Your task to perform on an android device: refresh tabs in the chrome app Image 0: 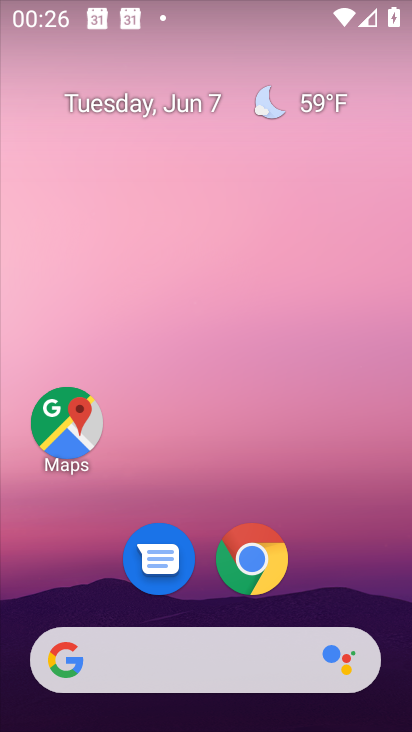
Step 0: click (257, 553)
Your task to perform on an android device: refresh tabs in the chrome app Image 1: 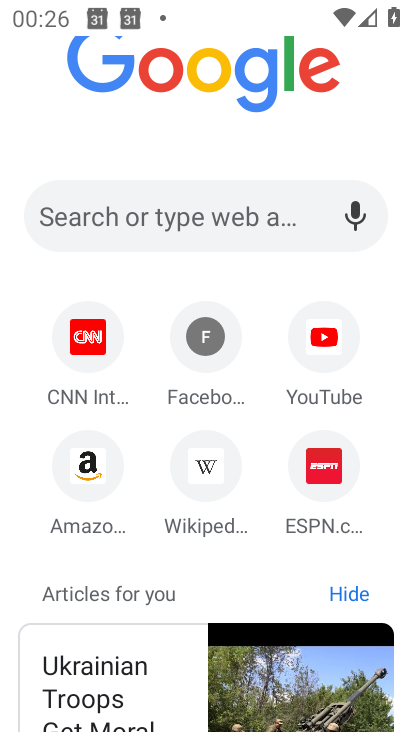
Step 1: drag from (352, 98) to (343, 372)
Your task to perform on an android device: refresh tabs in the chrome app Image 2: 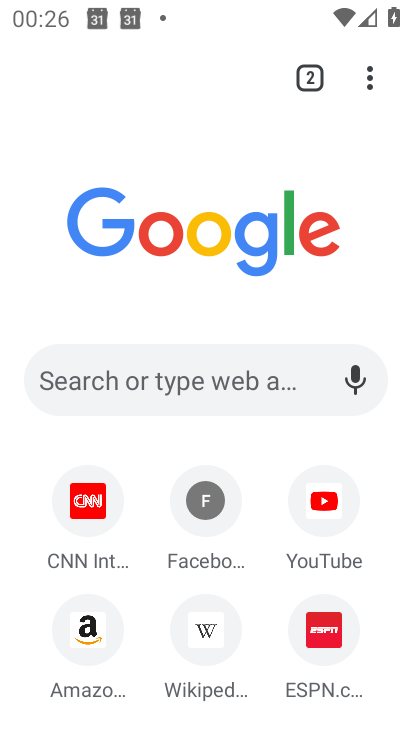
Step 2: click (368, 74)
Your task to perform on an android device: refresh tabs in the chrome app Image 3: 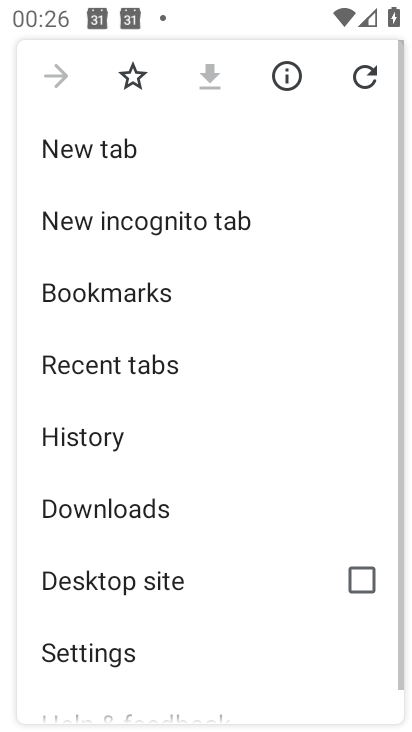
Step 3: click (145, 148)
Your task to perform on an android device: refresh tabs in the chrome app Image 4: 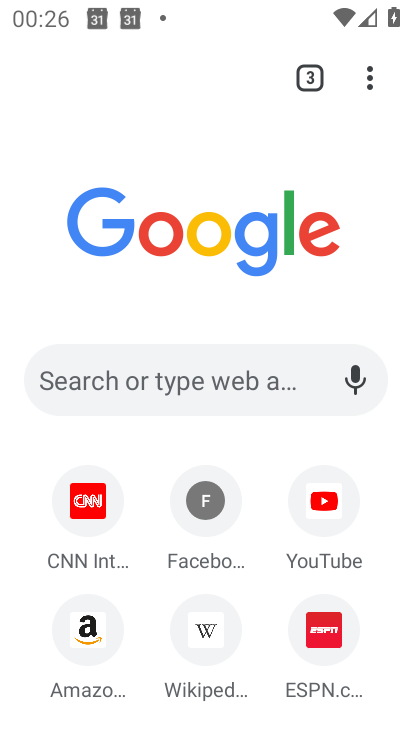
Step 4: click (372, 67)
Your task to perform on an android device: refresh tabs in the chrome app Image 5: 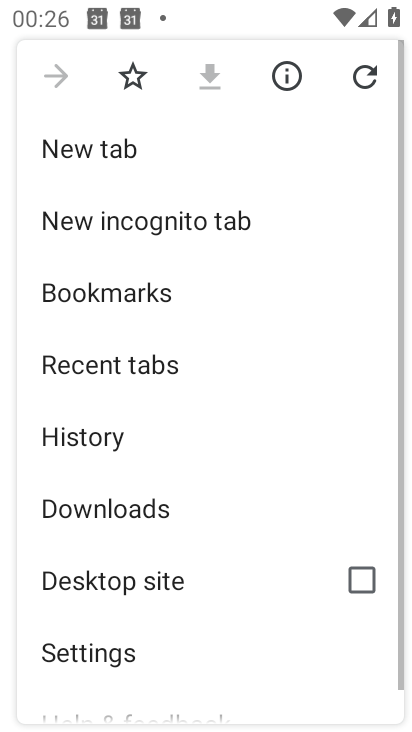
Step 5: click (374, 68)
Your task to perform on an android device: refresh tabs in the chrome app Image 6: 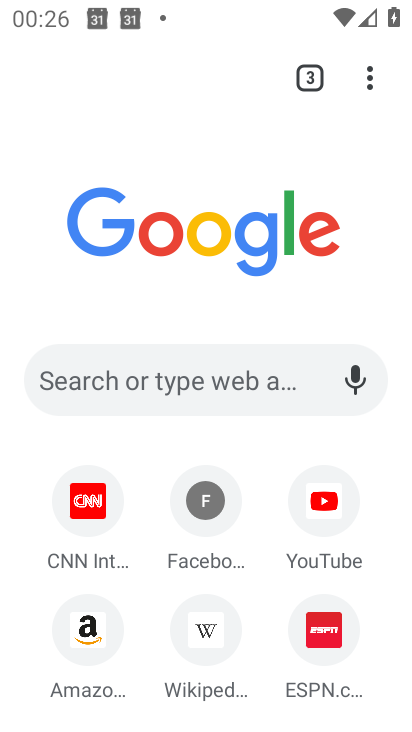
Step 6: task complete